Your task to perform on an android device: Show me recent news Image 0: 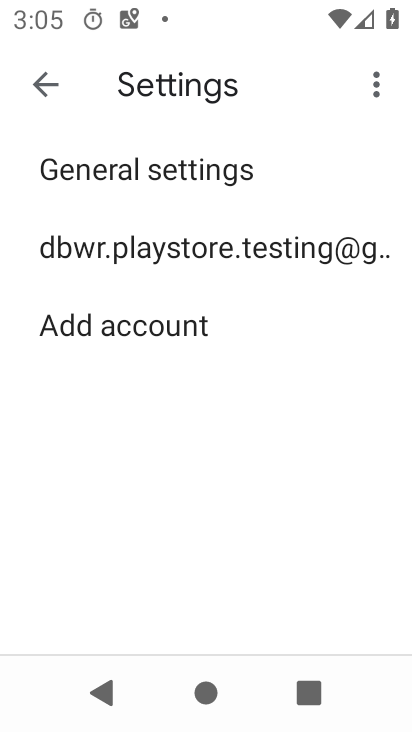
Step 0: press home button
Your task to perform on an android device: Show me recent news Image 1: 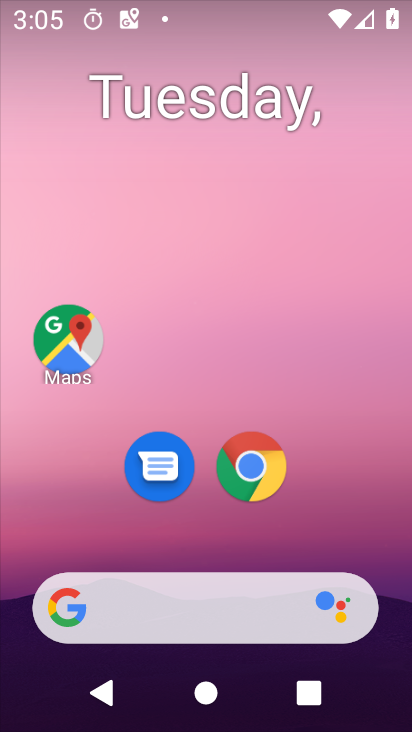
Step 1: task complete